Your task to perform on an android device: turn notification dots off Image 0: 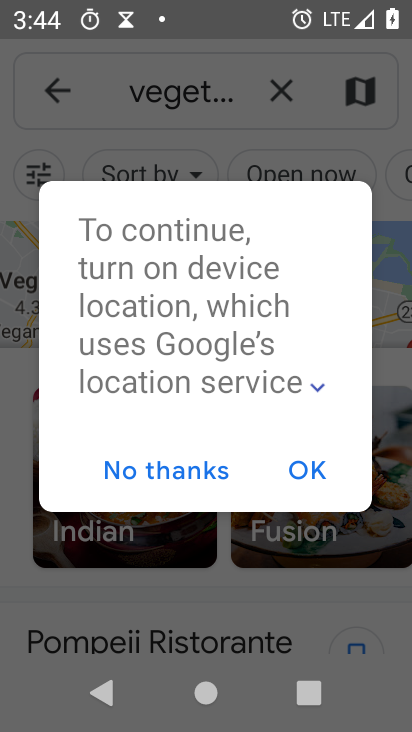
Step 0: press home button
Your task to perform on an android device: turn notification dots off Image 1: 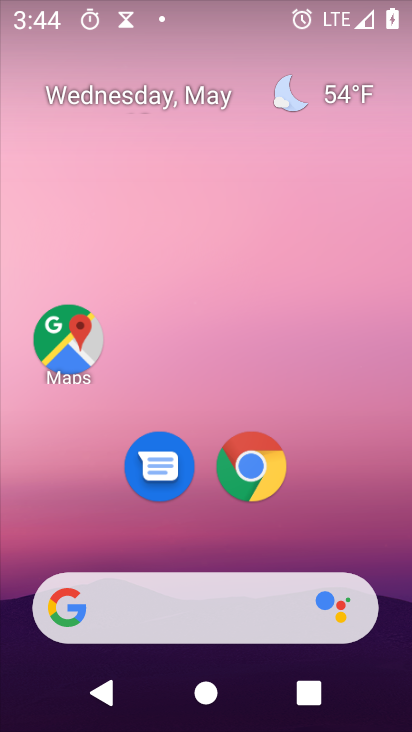
Step 1: drag from (350, 534) to (213, 24)
Your task to perform on an android device: turn notification dots off Image 2: 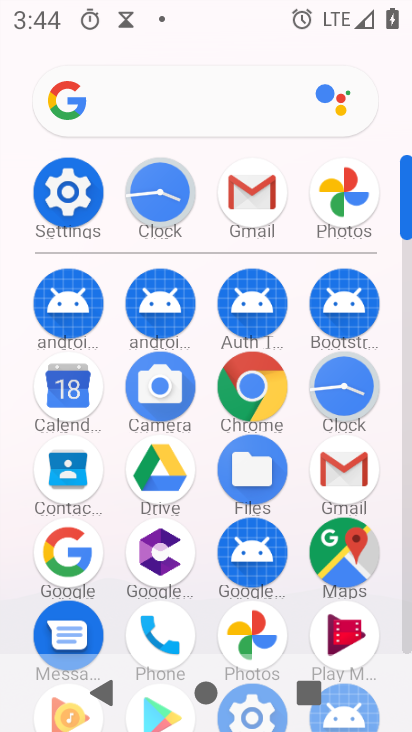
Step 2: click (75, 191)
Your task to perform on an android device: turn notification dots off Image 3: 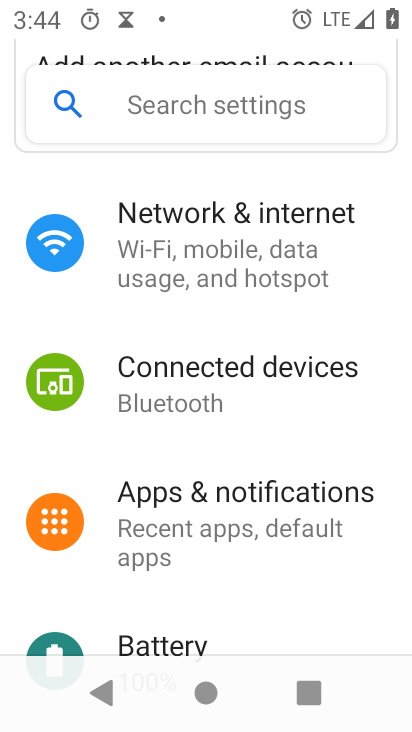
Step 3: click (262, 537)
Your task to perform on an android device: turn notification dots off Image 4: 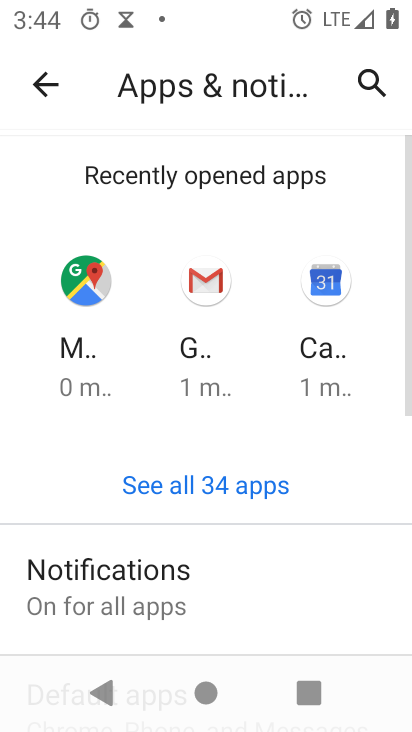
Step 4: drag from (276, 566) to (212, 154)
Your task to perform on an android device: turn notification dots off Image 5: 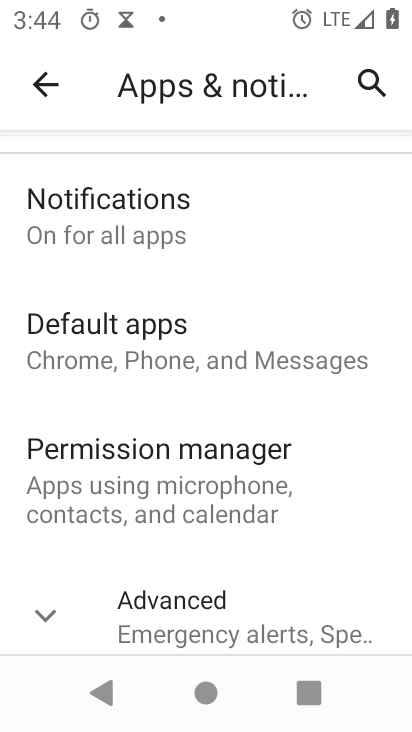
Step 5: click (297, 259)
Your task to perform on an android device: turn notification dots off Image 6: 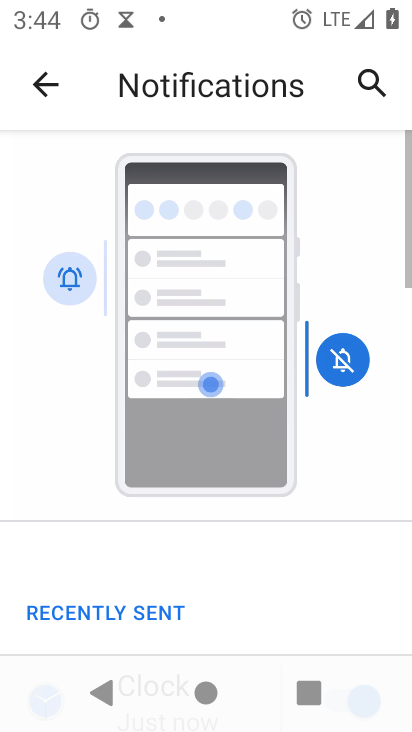
Step 6: drag from (327, 557) to (196, 104)
Your task to perform on an android device: turn notification dots off Image 7: 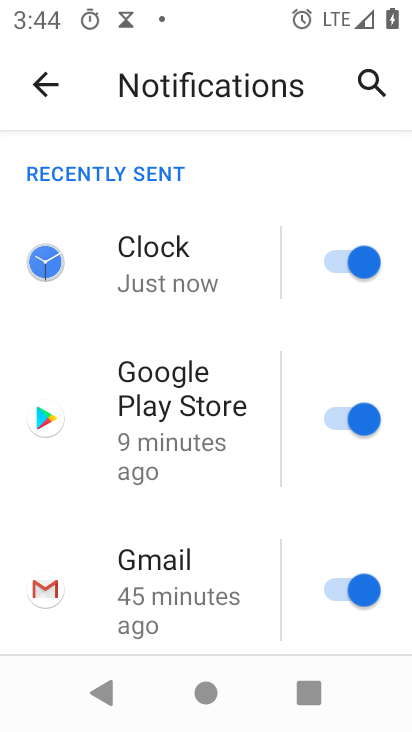
Step 7: drag from (261, 610) to (215, 174)
Your task to perform on an android device: turn notification dots off Image 8: 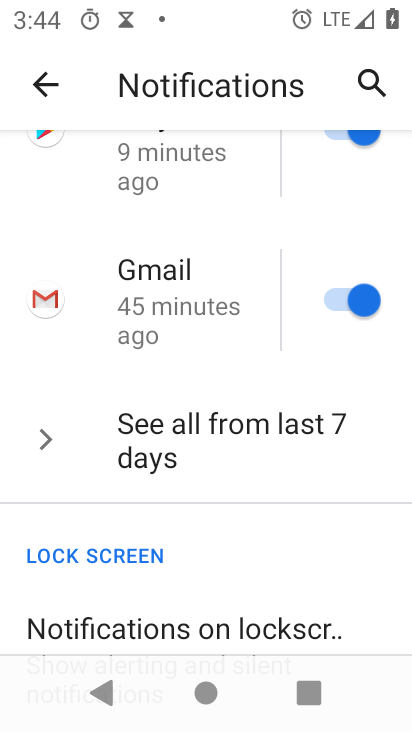
Step 8: drag from (288, 503) to (231, 126)
Your task to perform on an android device: turn notification dots off Image 9: 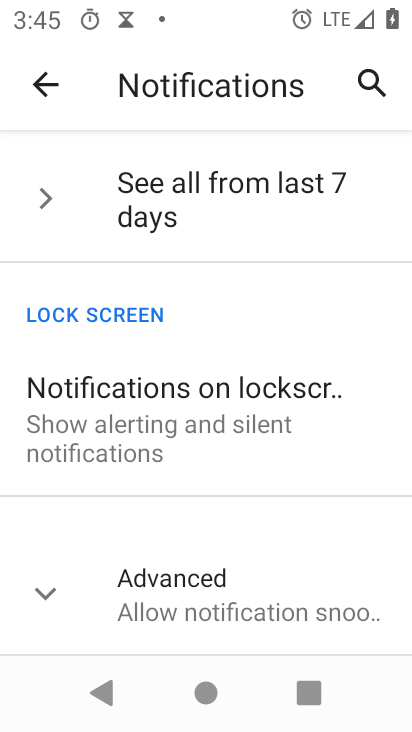
Step 9: click (313, 602)
Your task to perform on an android device: turn notification dots off Image 10: 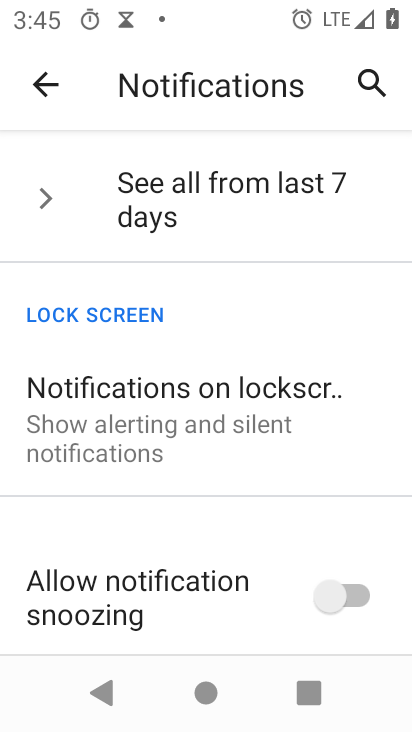
Step 10: task complete